Your task to perform on an android device: check data usage Image 0: 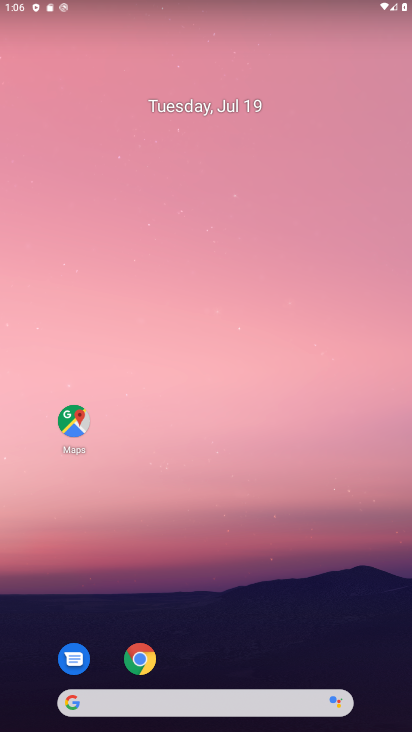
Step 0: press home button
Your task to perform on an android device: check data usage Image 1: 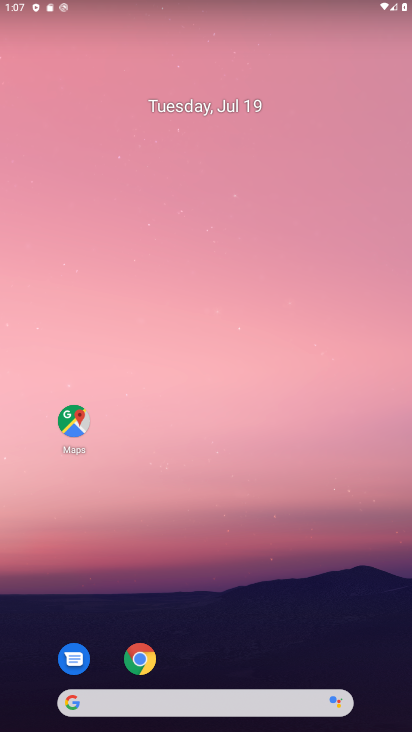
Step 1: click (129, 669)
Your task to perform on an android device: check data usage Image 2: 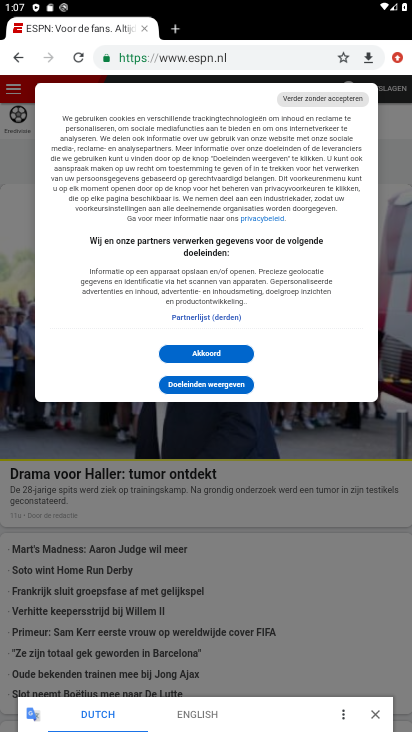
Step 2: drag from (366, 13) to (304, 698)
Your task to perform on an android device: check data usage Image 3: 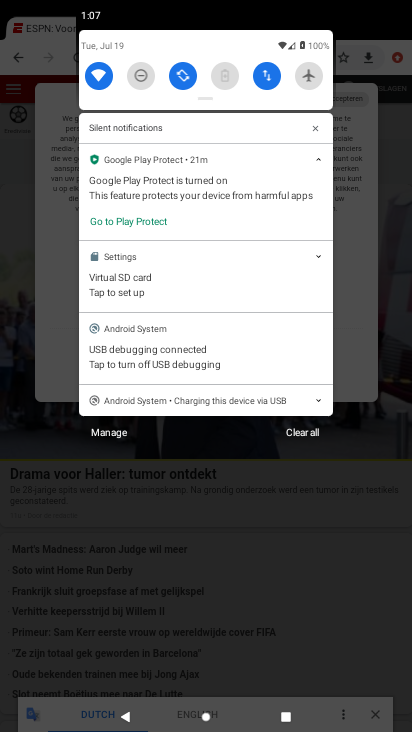
Step 3: click (278, 68)
Your task to perform on an android device: check data usage Image 4: 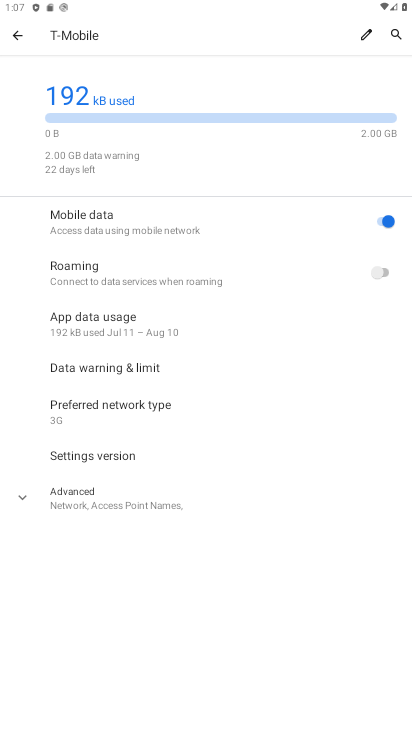
Step 4: task complete